Your task to perform on an android device: clear all cookies in the chrome app Image 0: 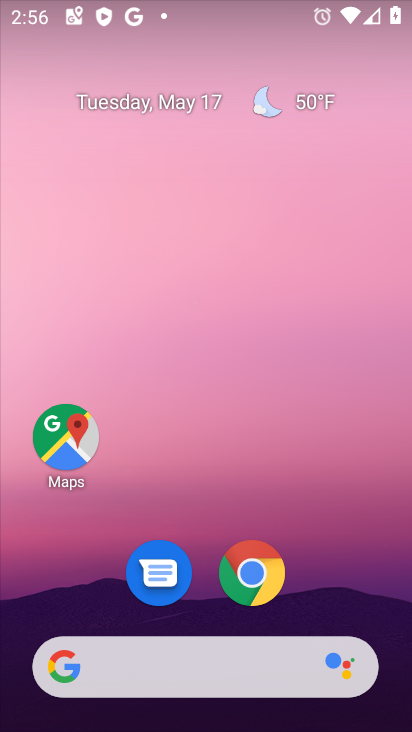
Step 0: click (250, 569)
Your task to perform on an android device: clear all cookies in the chrome app Image 1: 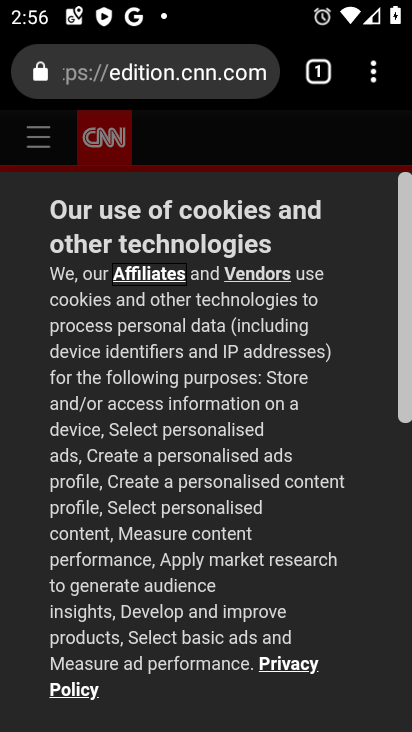
Step 1: task complete